Your task to perform on an android device: check google app version Image 0: 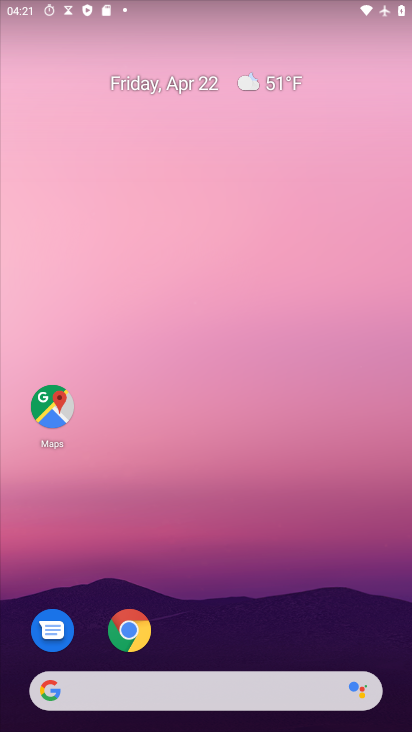
Step 0: drag from (347, 561) to (206, 2)
Your task to perform on an android device: check google app version Image 1: 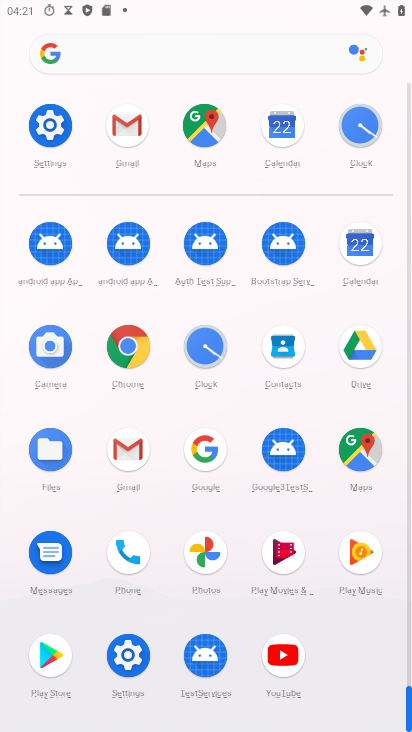
Step 1: drag from (5, 454) to (21, 205)
Your task to perform on an android device: check google app version Image 2: 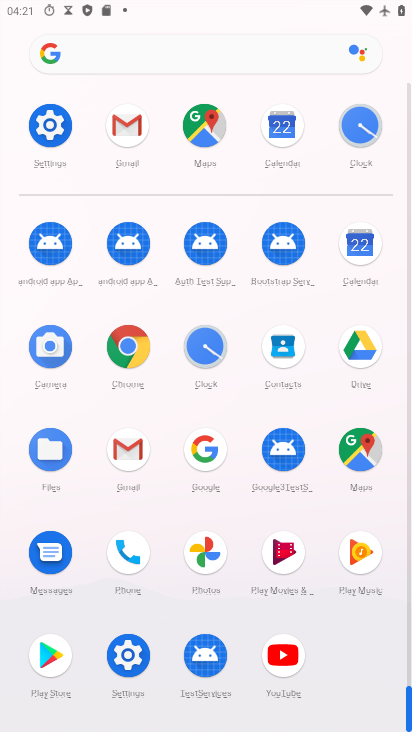
Step 2: click (209, 450)
Your task to perform on an android device: check google app version Image 3: 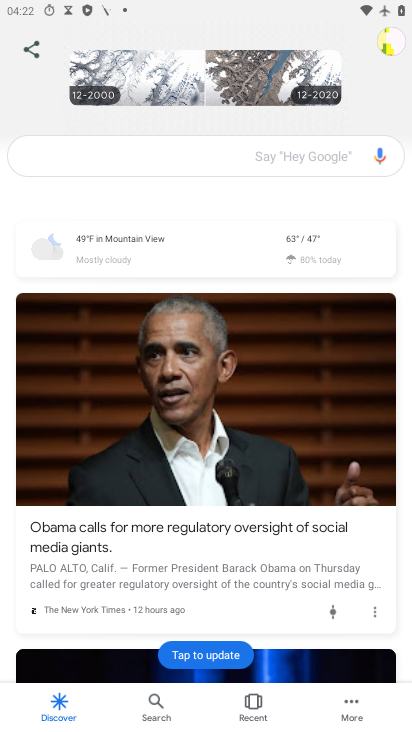
Step 3: click (349, 703)
Your task to perform on an android device: check google app version Image 4: 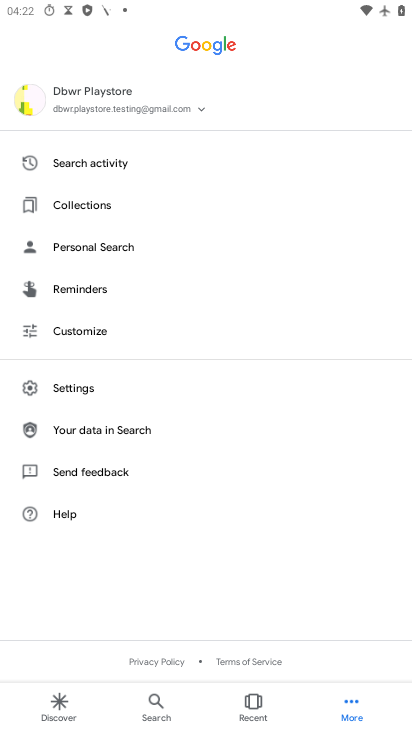
Step 4: click (100, 381)
Your task to perform on an android device: check google app version Image 5: 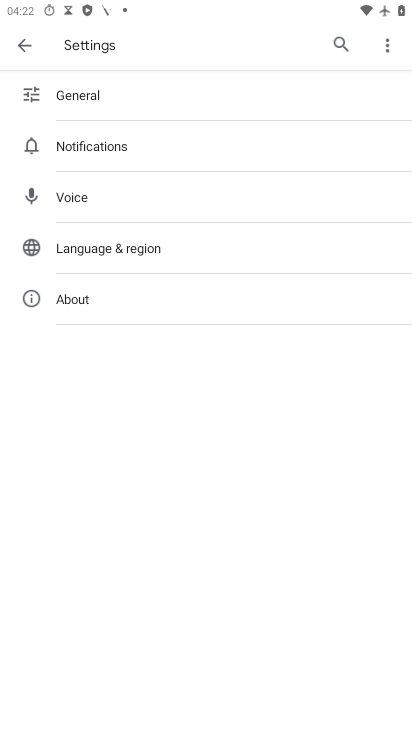
Step 5: click (113, 289)
Your task to perform on an android device: check google app version Image 6: 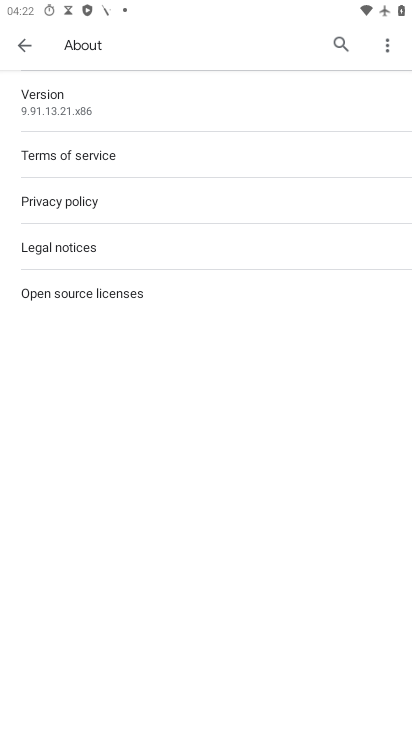
Step 6: task complete